Your task to perform on an android device: turn off airplane mode Image 0: 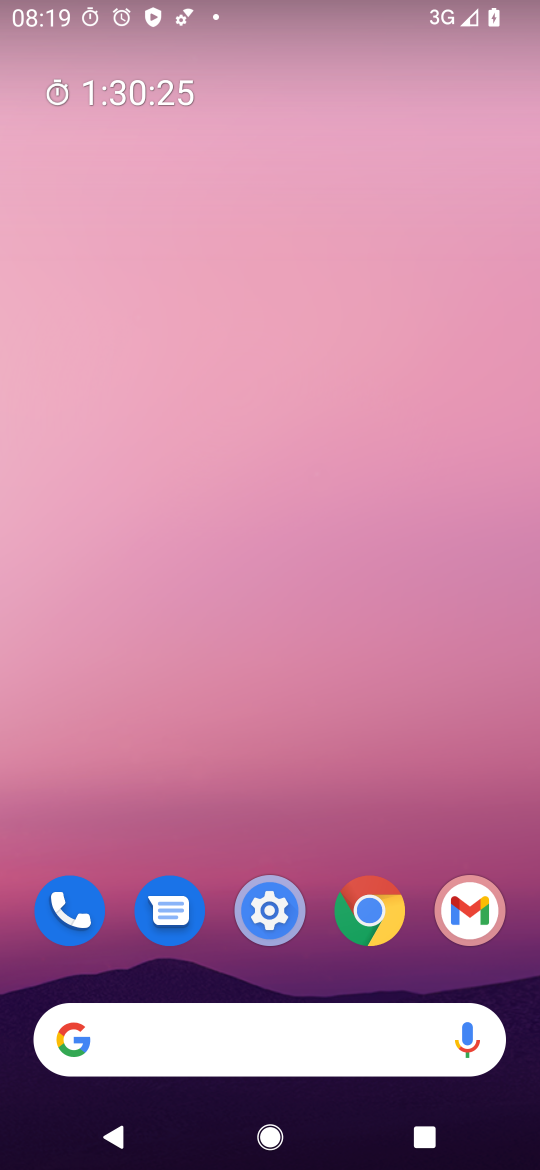
Step 0: drag from (274, 1012) to (305, 15)
Your task to perform on an android device: turn off airplane mode Image 1: 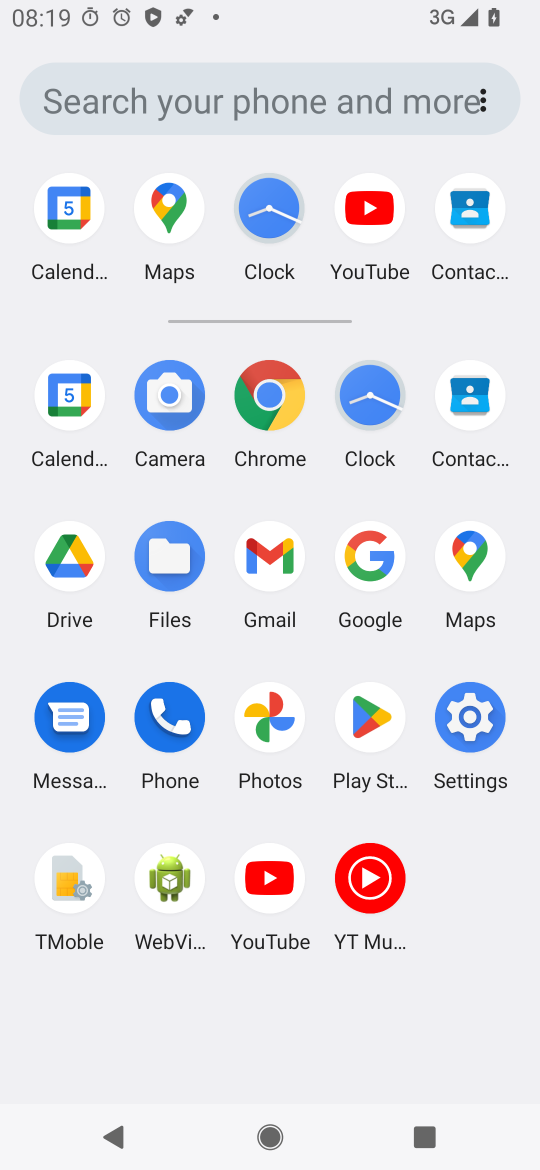
Step 1: click (451, 703)
Your task to perform on an android device: turn off airplane mode Image 2: 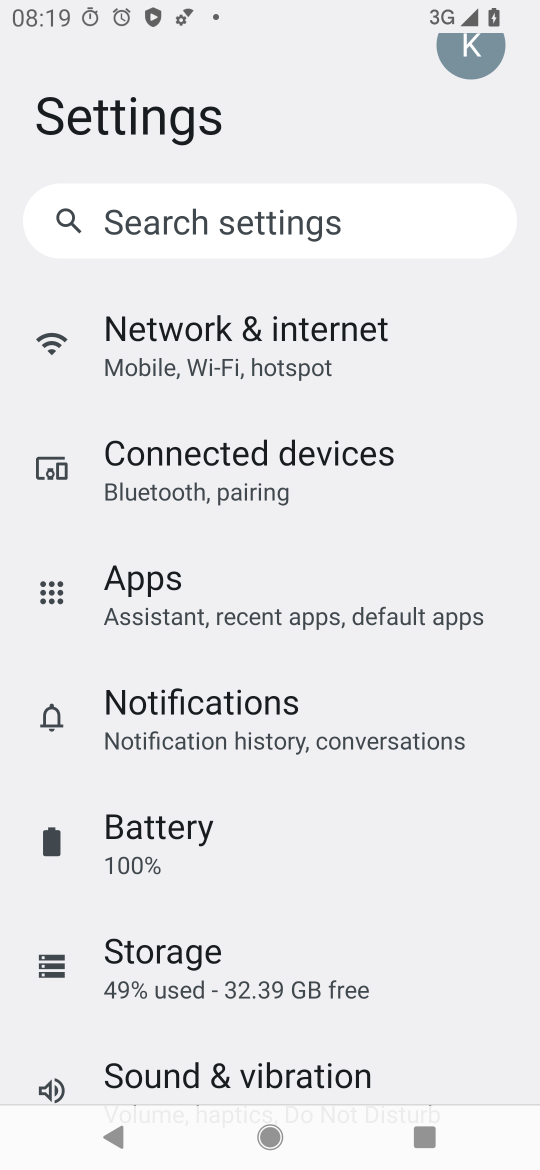
Step 2: click (273, 373)
Your task to perform on an android device: turn off airplane mode Image 3: 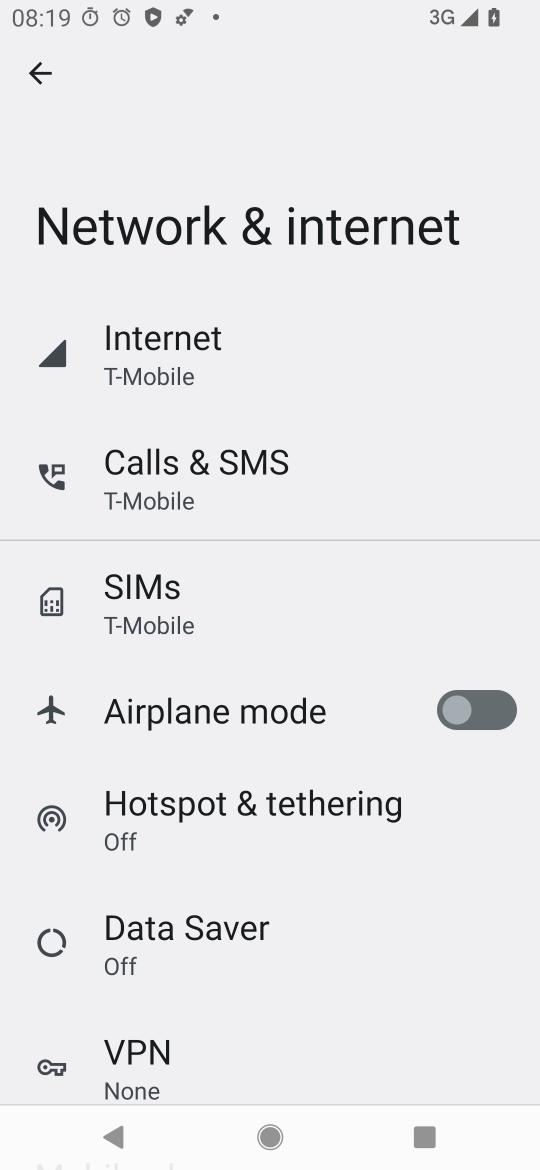
Step 3: task complete